Your task to perform on an android device: open app "Paramount+ | Peak Streaming" (install if not already installed) and enter user name: "fostered@yahoo.com" and password: "strong" Image 0: 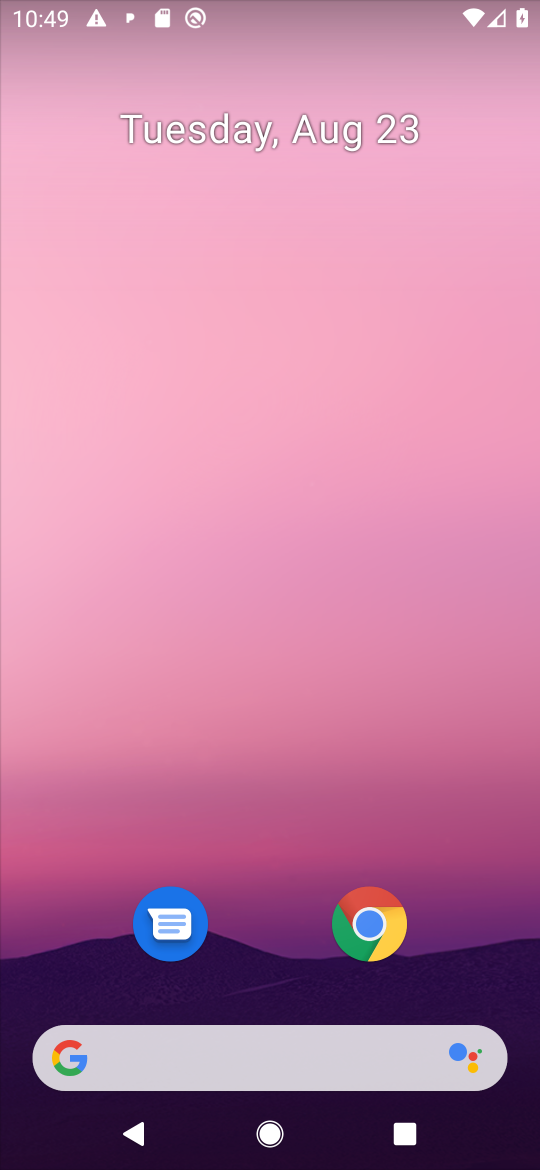
Step 0: press home button
Your task to perform on an android device: open app "Paramount+ | Peak Streaming" (install if not already installed) and enter user name: "fostered@yahoo.com" and password: "strong" Image 1: 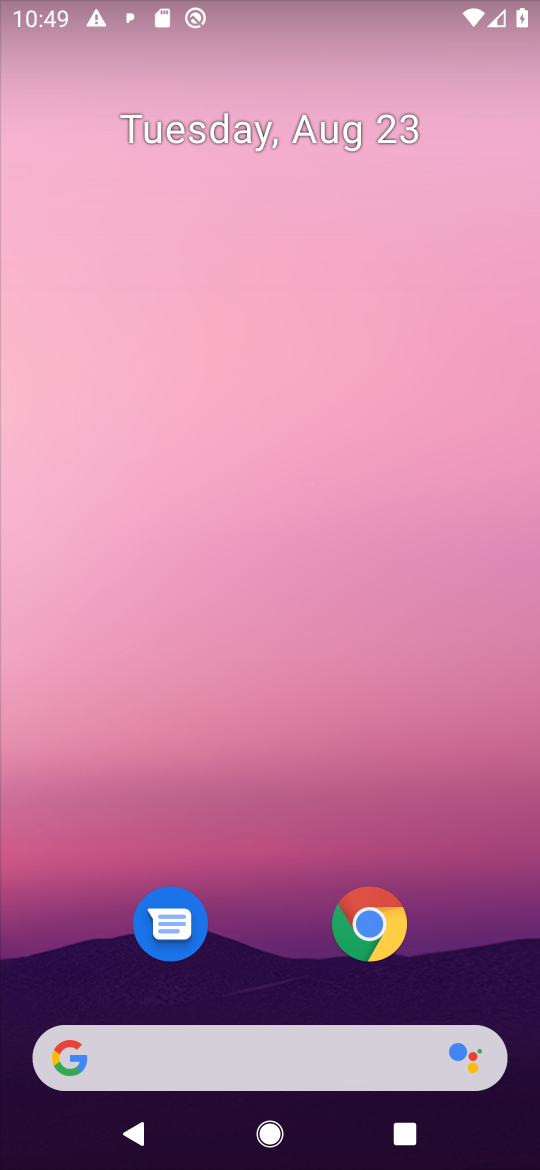
Step 1: drag from (482, 933) to (469, 135)
Your task to perform on an android device: open app "Paramount+ | Peak Streaming" (install if not already installed) and enter user name: "fostered@yahoo.com" and password: "strong" Image 2: 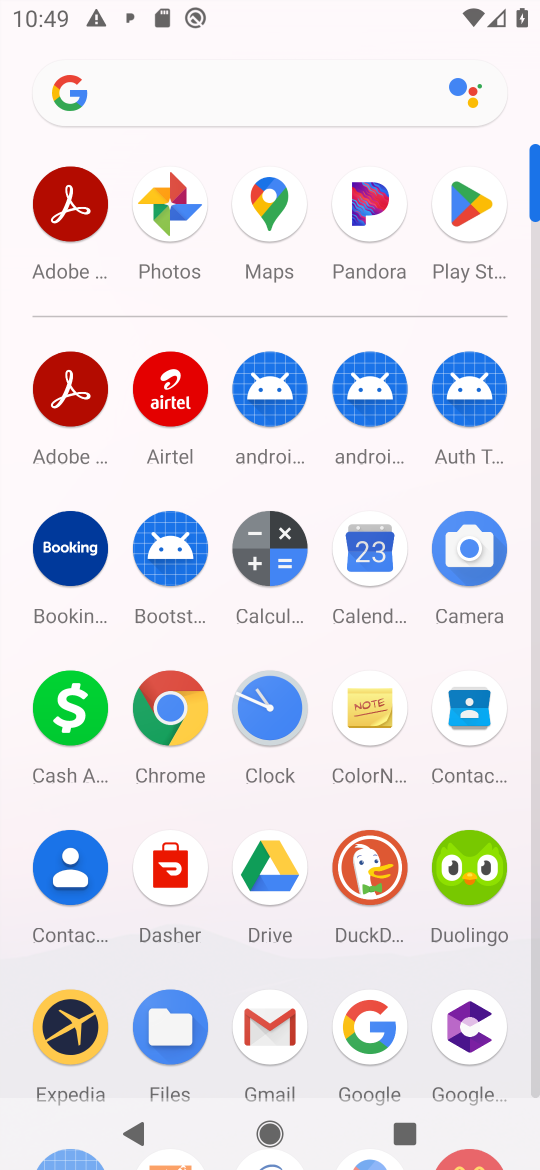
Step 2: click (466, 197)
Your task to perform on an android device: open app "Paramount+ | Peak Streaming" (install if not already installed) and enter user name: "fostered@yahoo.com" and password: "strong" Image 3: 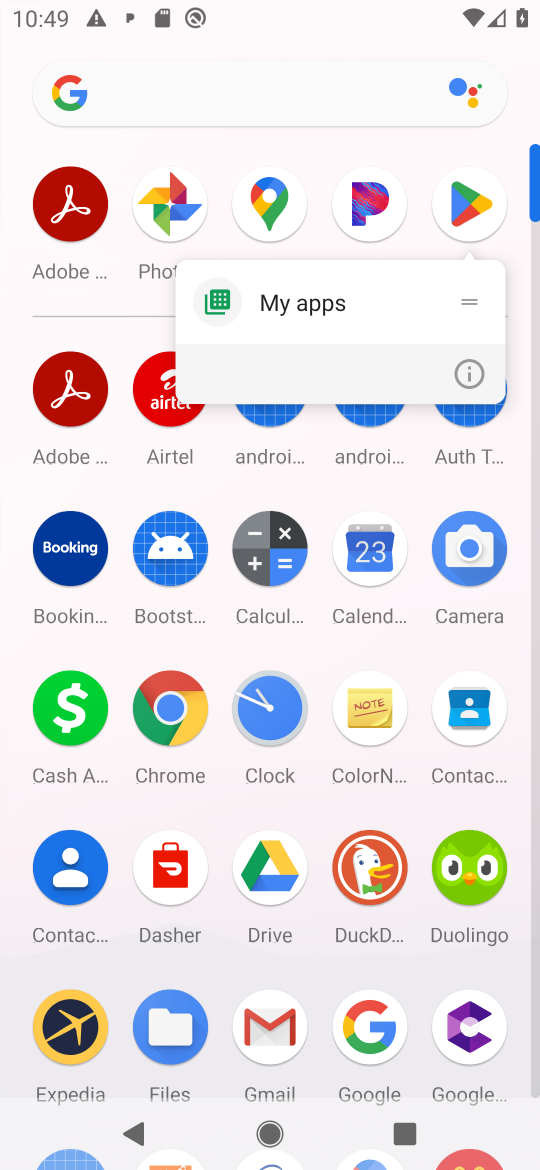
Step 3: click (466, 197)
Your task to perform on an android device: open app "Paramount+ | Peak Streaming" (install if not already installed) and enter user name: "fostered@yahoo.com" and password: "strong" Image 4: 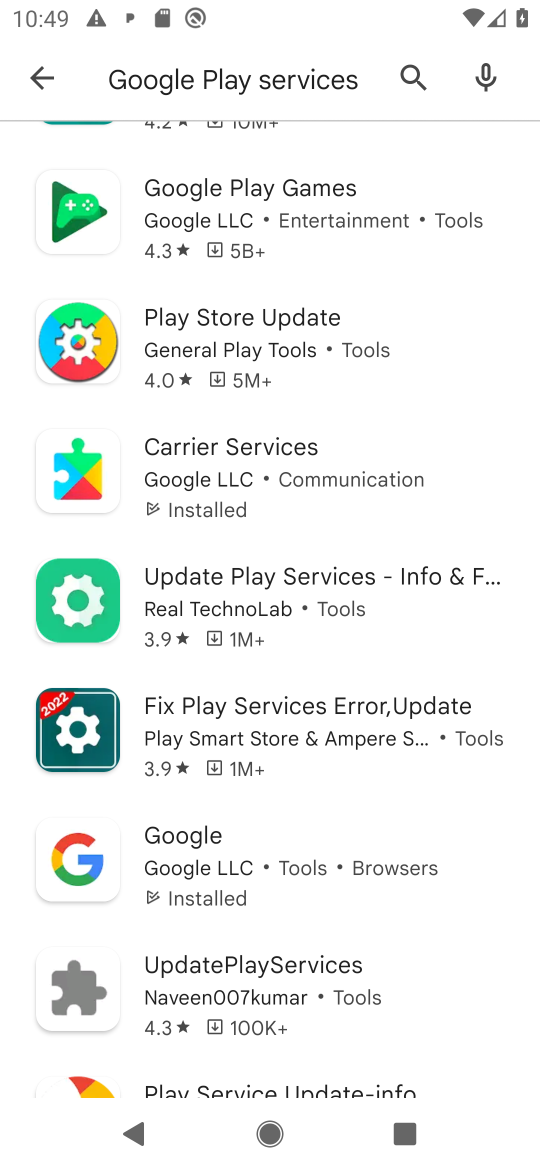
Step 4: press back button
Your task to perform on an android device: open app "Paramount+ | Peak Streaming" (install if not already installed) and enter user name: "fostered@yahoo.com" and password: "strong" Image 5: 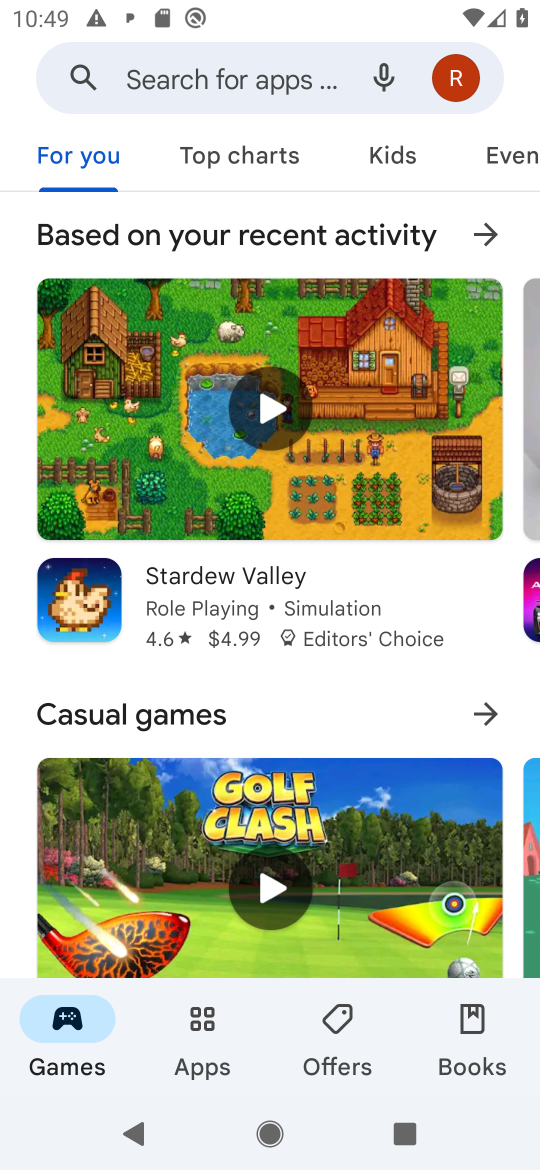
Step 5: click (266, 74)
Your task to perform on an android device: open app "Paramount+ | Peak Streaming" (install if not already installed) and enter user name: "fostered@yahoo.com" and password: "strong" Image 6: 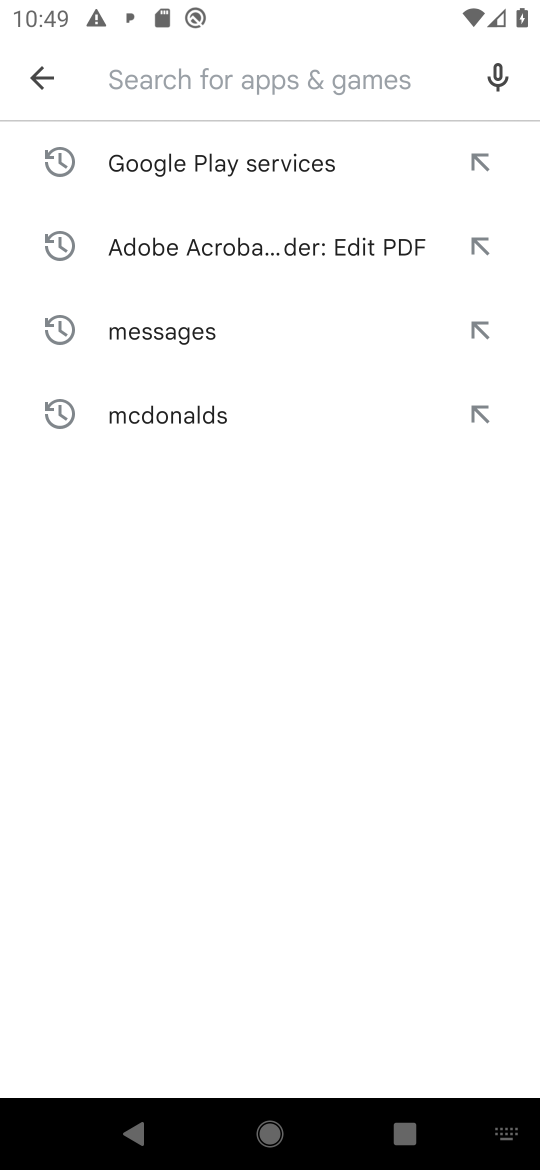
Step 6: press enter
Your task to perform on an android device: open app "Paramount+ | Peak Streaming" (install if not already installed) and enter user name: "fostered@yahoo.com" and password: "strong" Image 7: 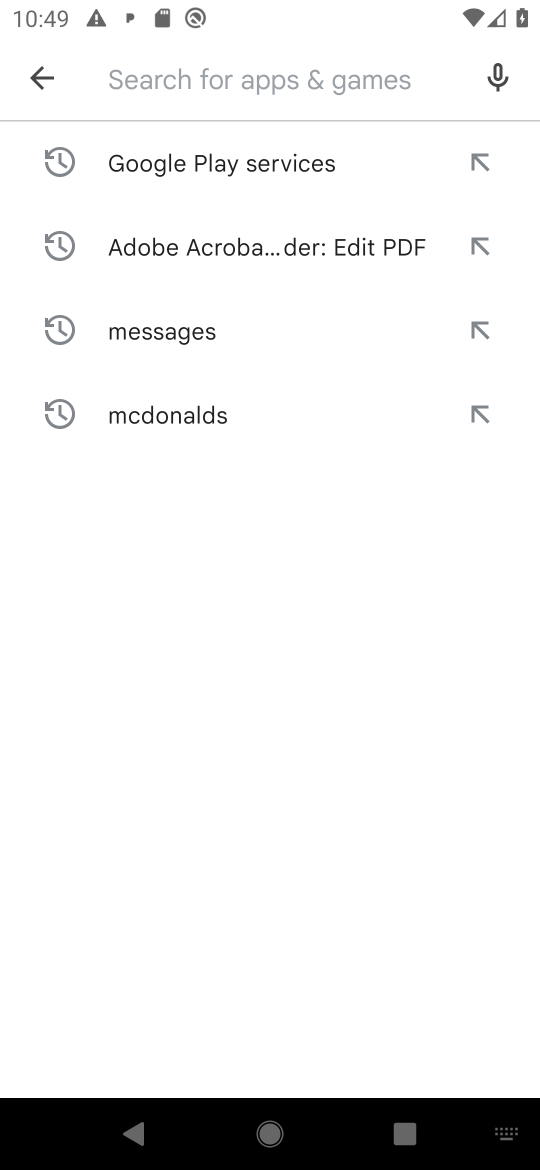
Step 7: type "Paramount+ | Peak Streaming"
Your task to perform on an android device: open app "Paramount+ | Peak Streaming" (install if not already installed) and enter user name: "fostered@yahoo.com" and password: "strong" Image 8: 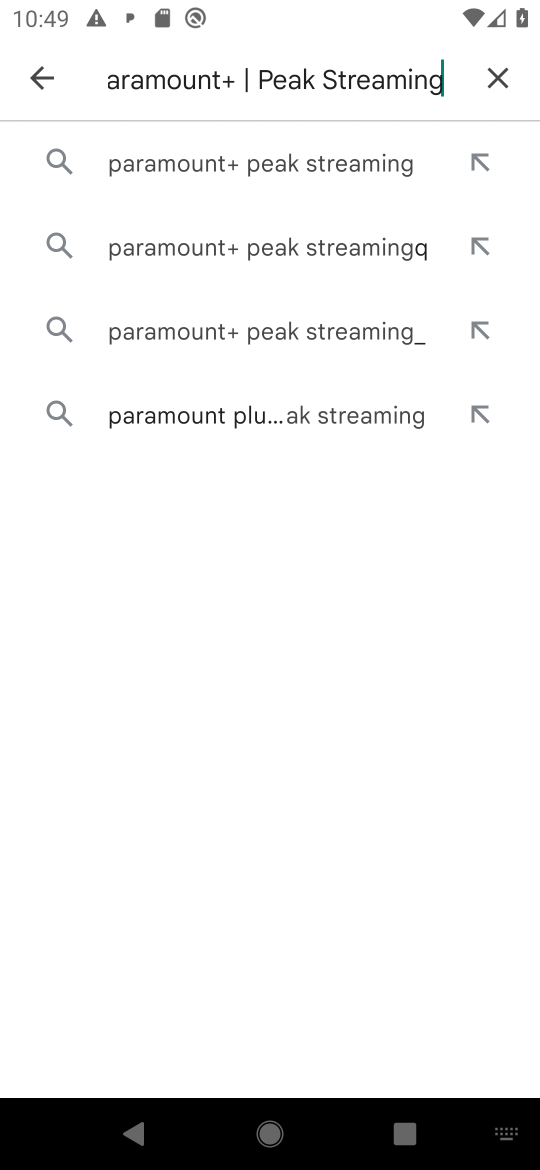
Step 8: click (291, 177)
Your task to perform on an android device: open app "Paramount+ | Peak Streaming" (install if not already installed) and enter user name: "fostered@yahoo.com" and password: "strong" Image 9: 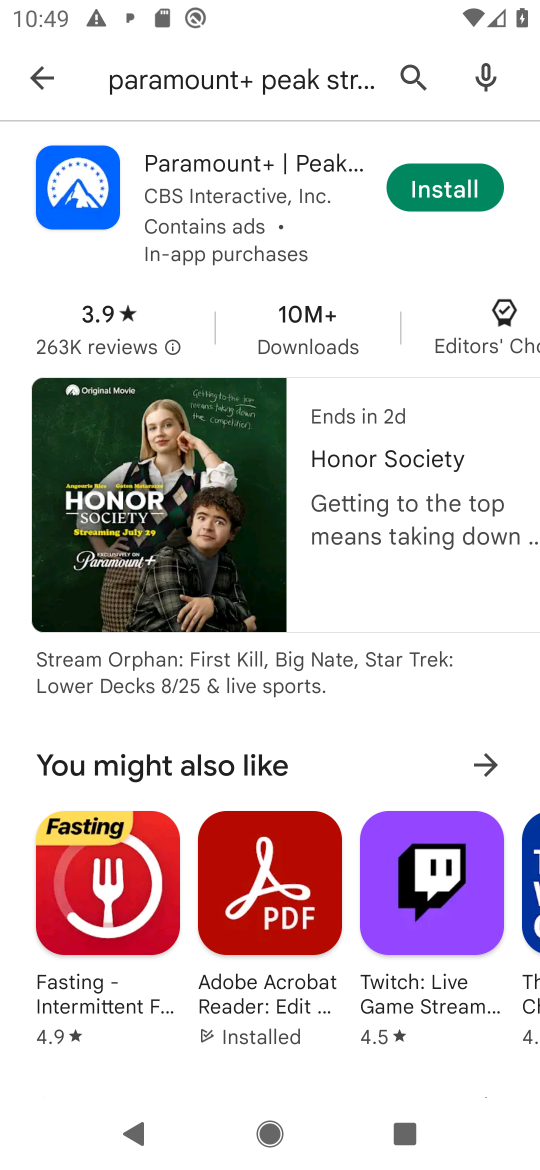
Step 9: click (445, 194)
Your task to perform on an android device: open app "Paramount+ | Peak Streaming" (install if not already installed) and enter user name: "fostered@yahoo.com" and password: "strong" Image 10: 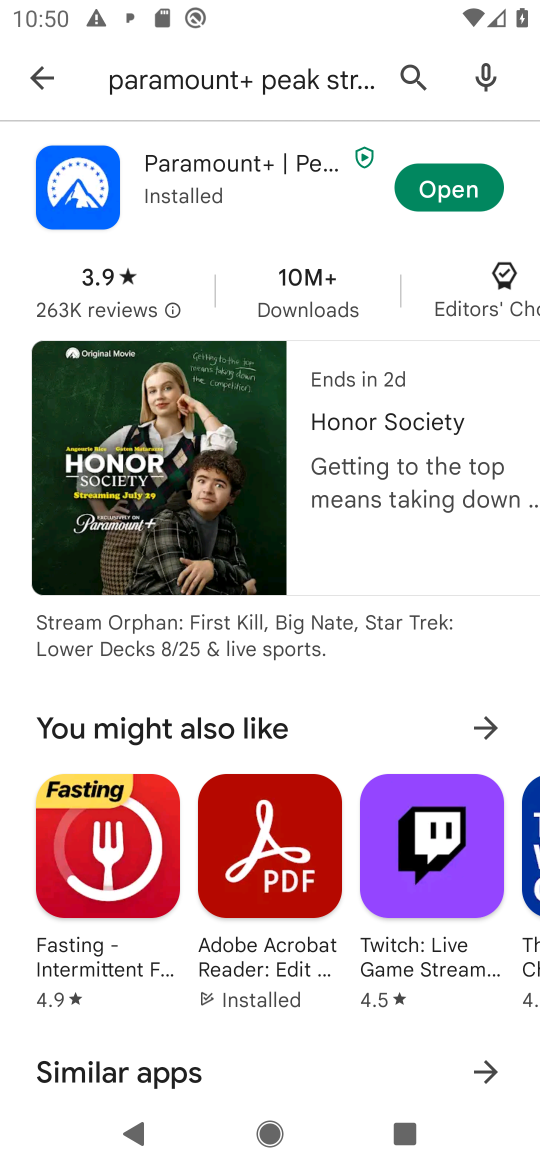
Step 10: click (446, 187)
Your task to perform on an android device: open app "Paramount+ | Peak Streaming" (install if not already installed) and enter user name: "fostered@yahoo.com" and password: "strong" Image 11: 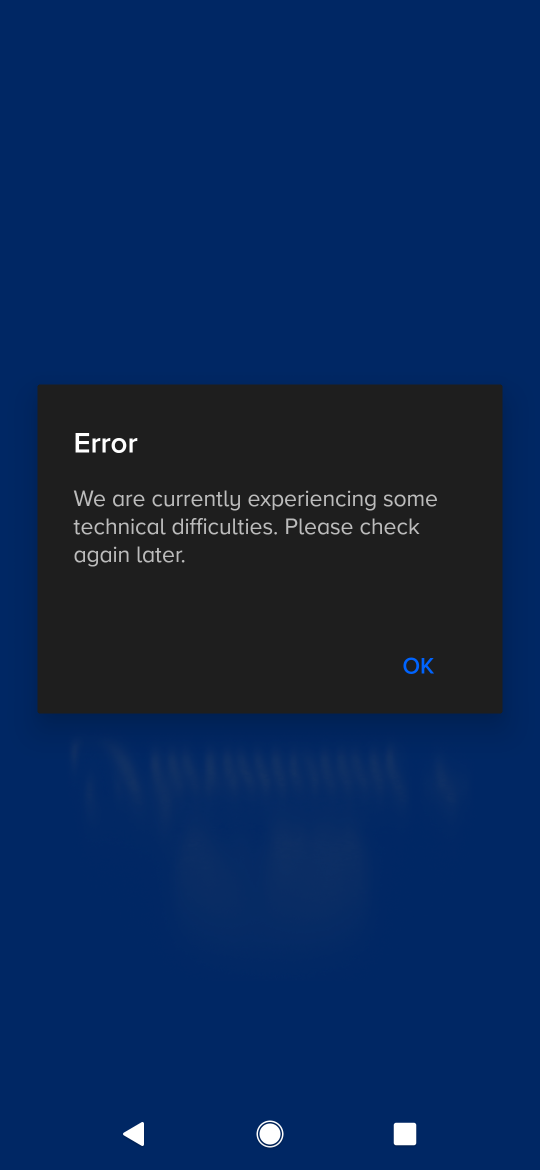
Step 11: task complete